Your task to perform on an android device: Open display settings Image 0: 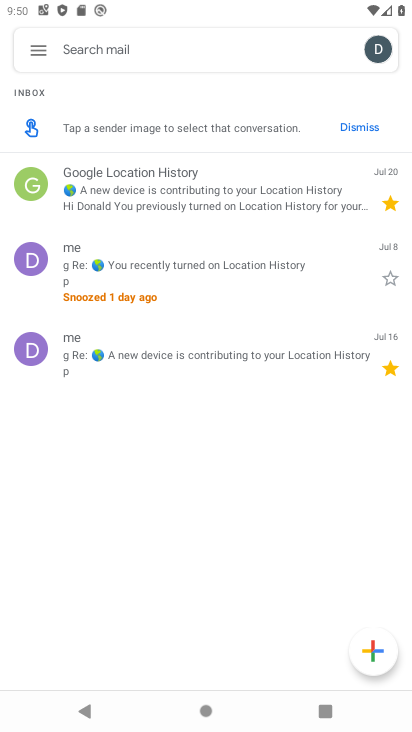
Step 0: press home button
Your task to perform on an android device: Open display settings Image 1: 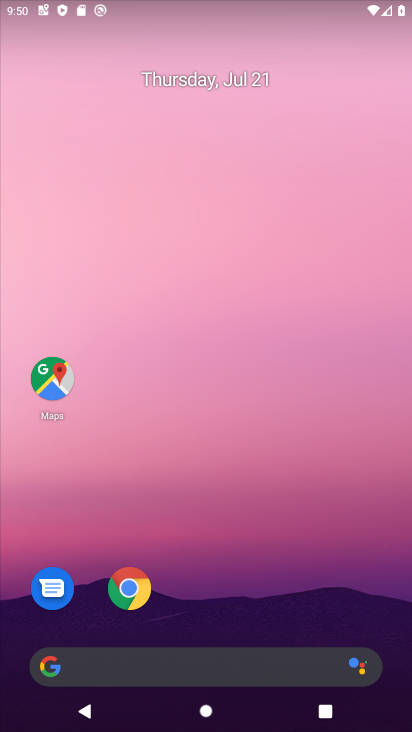
Step 1: drag from (386, 703) to (323, 10)
Your task to perform on an android device: Open display settings Image 2: 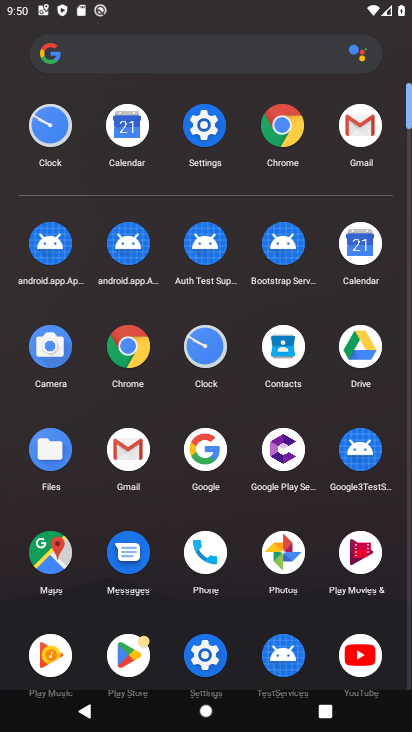
Step 2: click (204, 124)
Your task to perform on an android device: Open display settings Image 3: 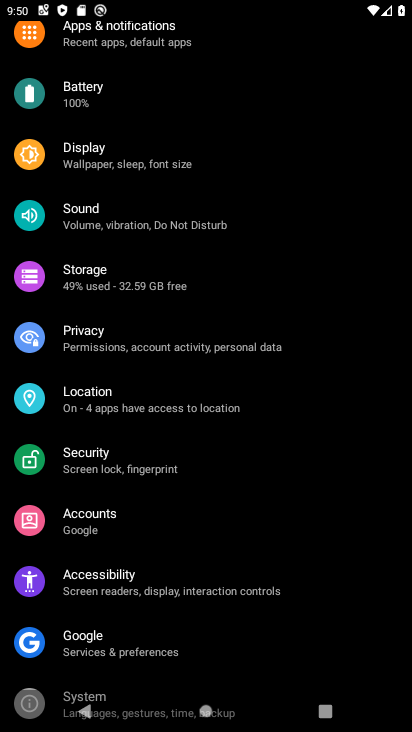
Step 3: click (76, 144)
Your task to perform on an android device: Open display settings Image 4: 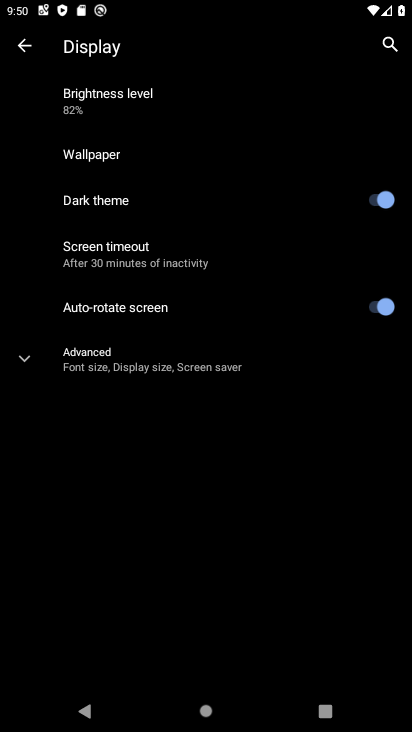
Step 4: click (20, 364)
Your task to perform on an android device: Open display settings Image 5: 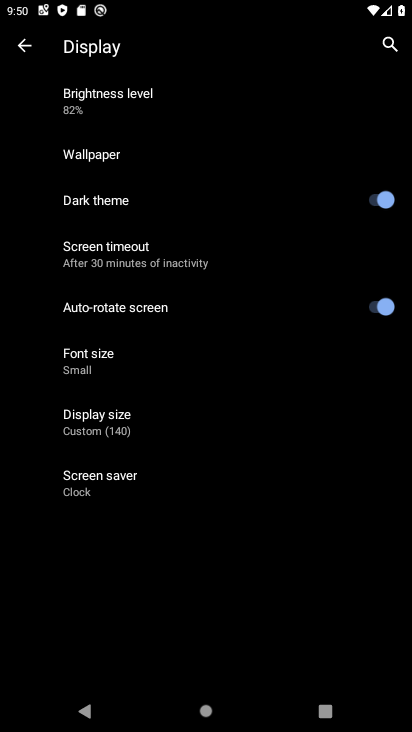
Step 5: task complete